Your task to perform on an android device: open device folders in google photos Image 0: 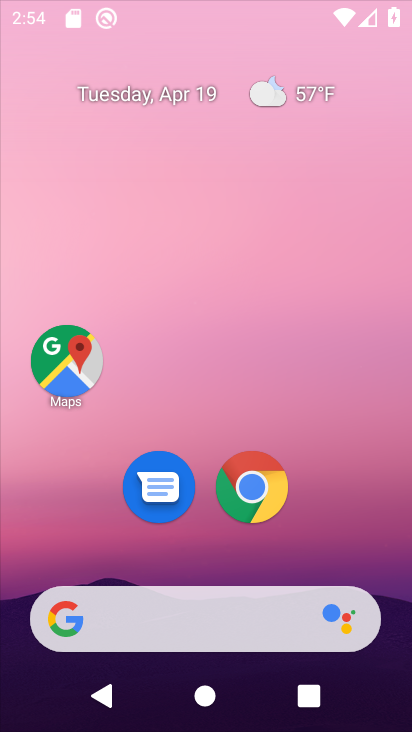
Step 0: click (341, 179)
Your task to perform on an android device: open device folders in google photos Image 1: 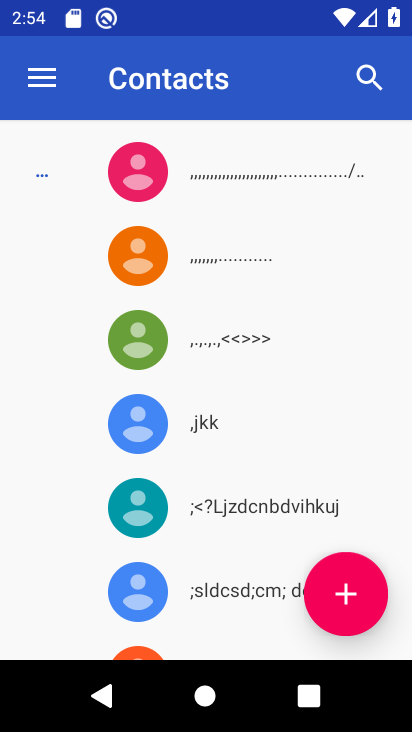
Step 1: press home button
Your task to perform on an android device: open device folders in google photos Image 2: 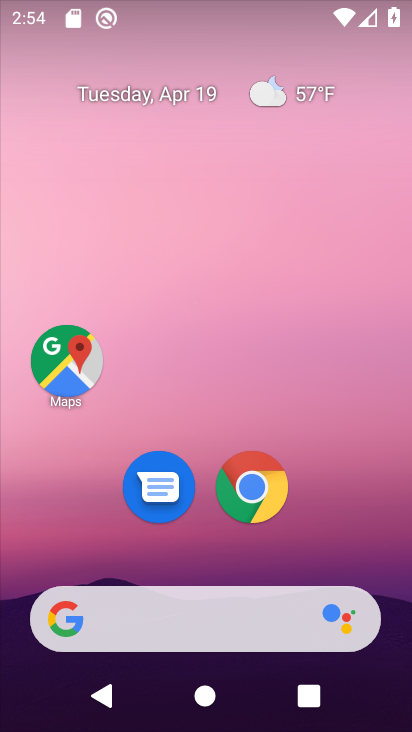
Step 2: drag from (368, 534) to (379, 191)
Your task to perform on an android device: open device folders in google photos Image 3: 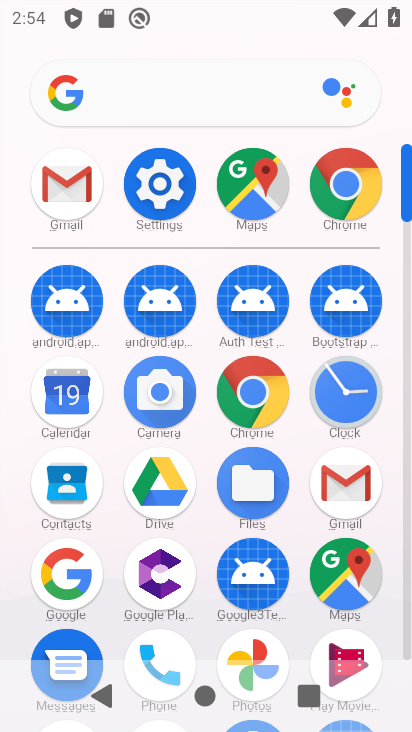
Step 3: click (258, 642)
Your task to perform on an android device: open device folders in google photos Image 4: 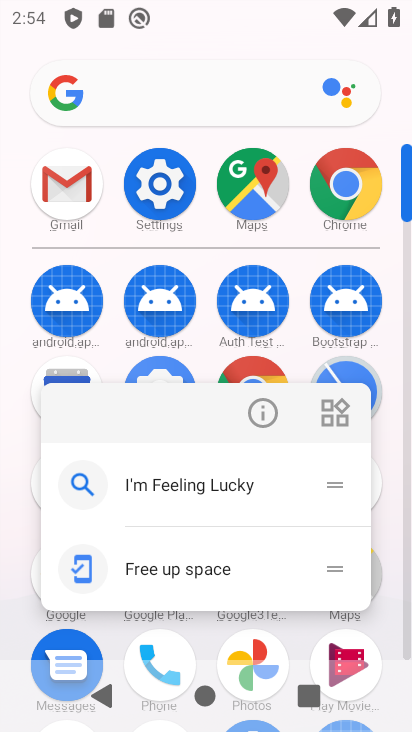
Step 4: click (248, 655)
Your task to perform on an android device: open device folders in google photos Image 5: 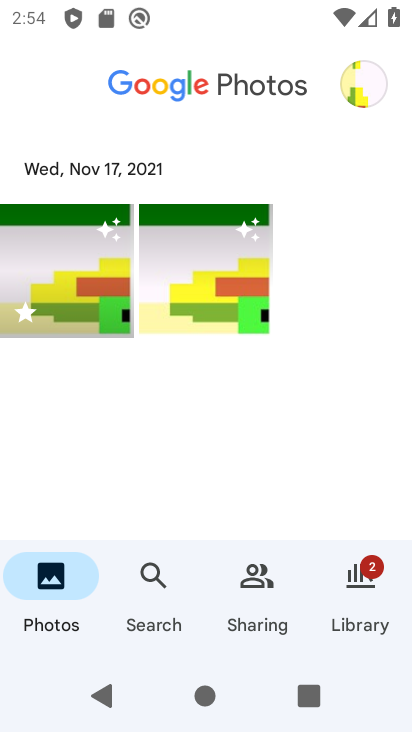
Step 5: click (363, 588)
Your task to perform on an android device: open device folders in google photos Image 6: 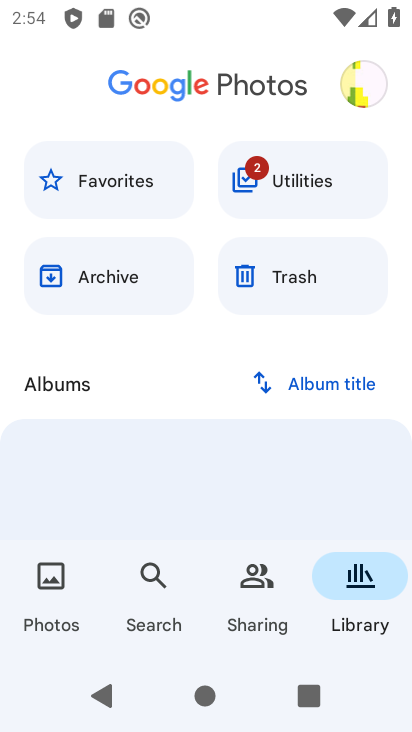
Step 6: click (347, 82)
Your task to perform on an android device: open device folders in google photos Image 7: 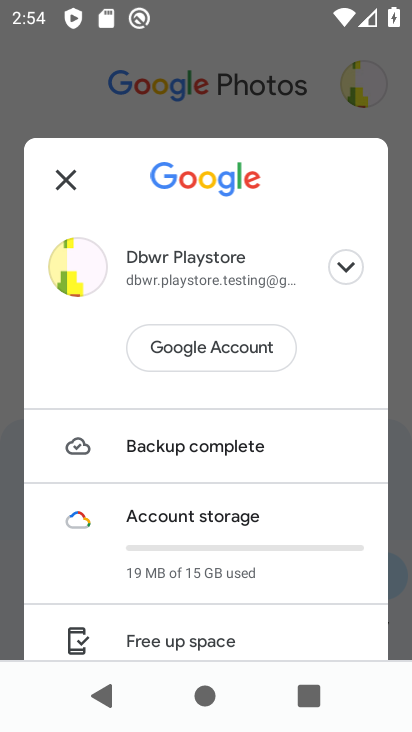
Step 7: task complete